Your task to perform on an android device: check battery use Image 0: 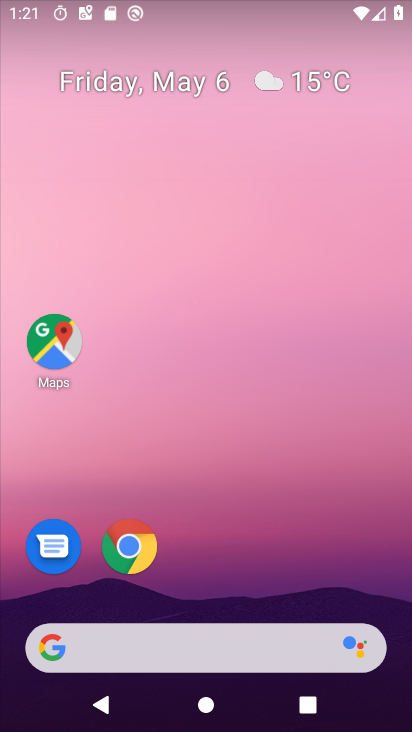
Step 0: drag from (287, 571) to (222, 183)
Your task to perform on an android device: check battery use Image 1: 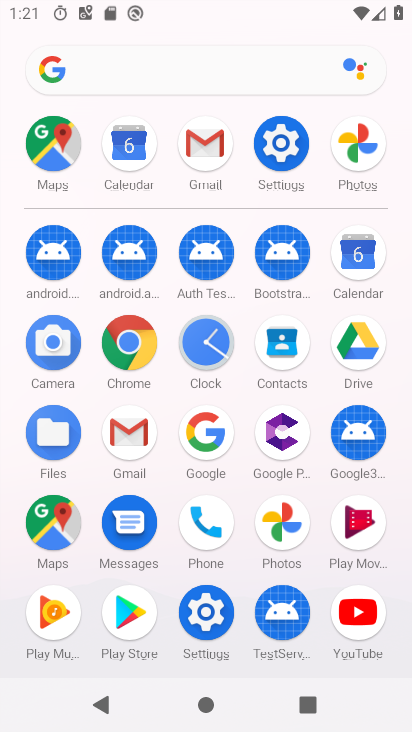
Step 1: click (287, 144)
Your task to perform on an android device: check battery use Image 2: 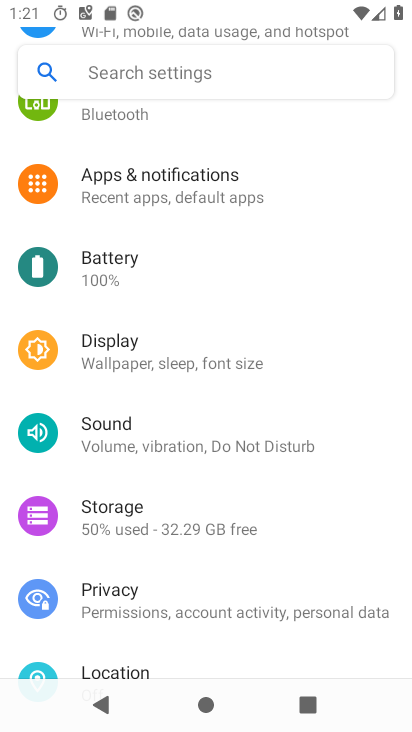
Step 2: drag from (222, 634) to (200, 343)
Your task to perform on an android device: check battery use Image 3: 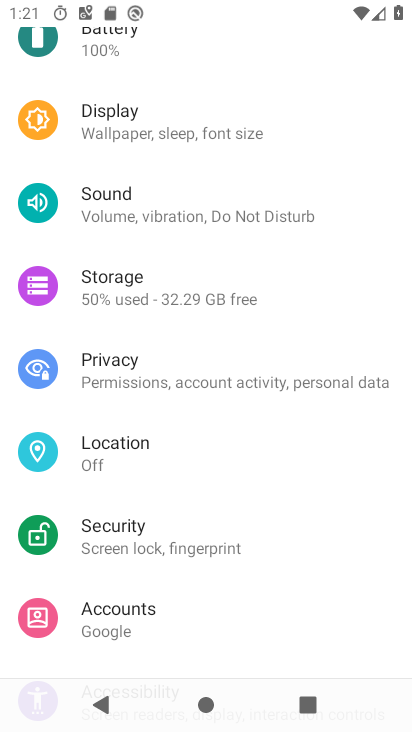
Step 3: drag from (208, 580) to (233, 333)
Your task to perform on an android device: check battery use Image 4: 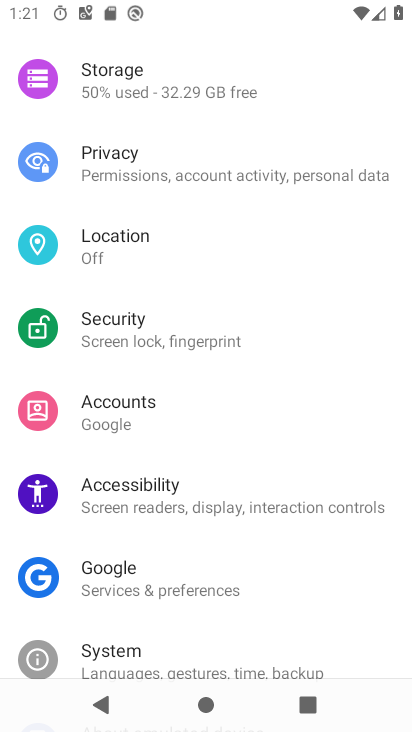
Step 4: drag from (228, 234) to (230, 516)
Your task to perform on an android device: check battery use Image 5: 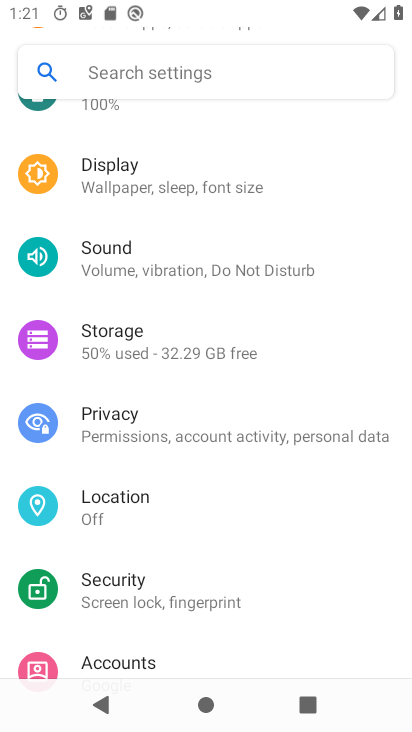
Step 5: drag from (227, 145) to (237, 401)
Your task to perform on an android device: check battery use Image 6: 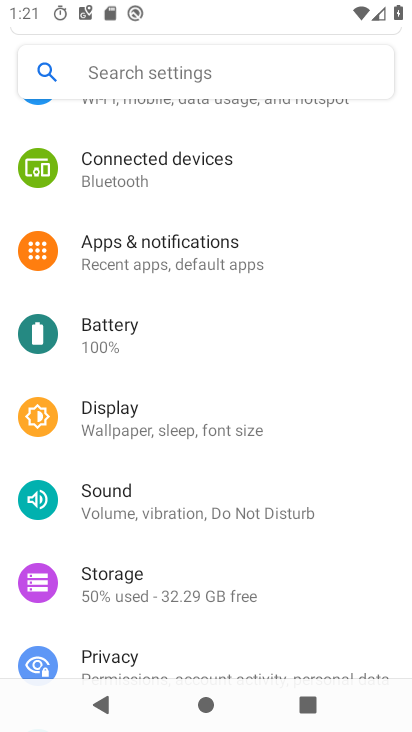
Step 6: click (178, 326)
Your task to perform on an android device: check battery use Image 7: 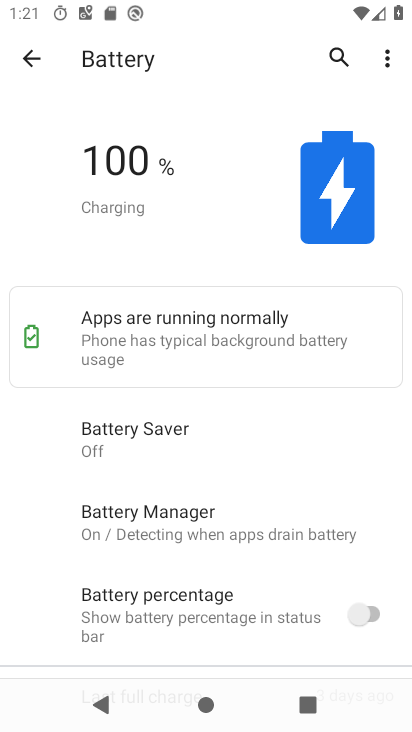
Step 7: click (386, 51)
Your task to perform on an android device: check battery use Image 8: 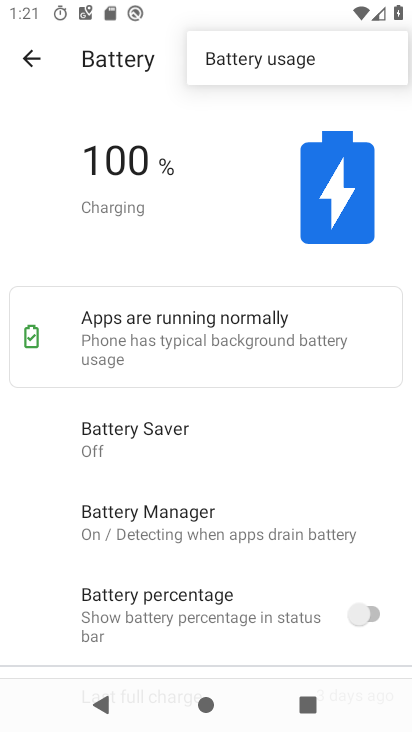
Step 8: click (305, 61)
Your task to perform on an android device: check battery use Image 9: 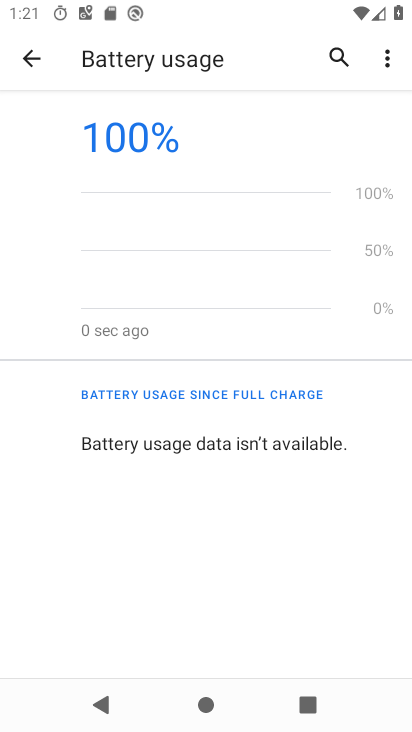
Step 9: task complete